Your task to perform on an android device: Open Maps and search for coffee Image 0: 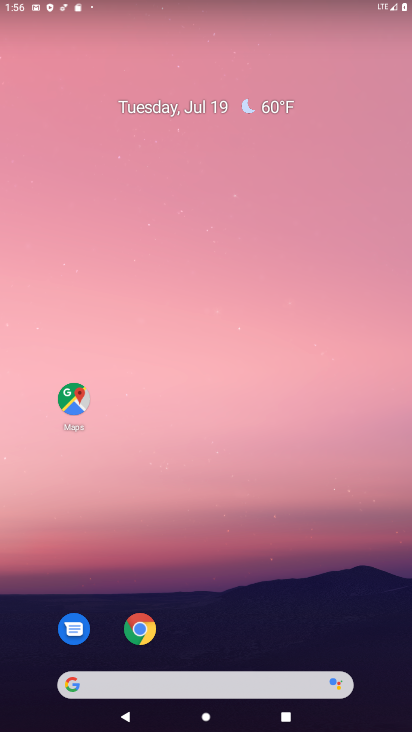
Step 0: click (73, 402)
Your task to perform on an android device: Open Maps and search for coffee Image 1: 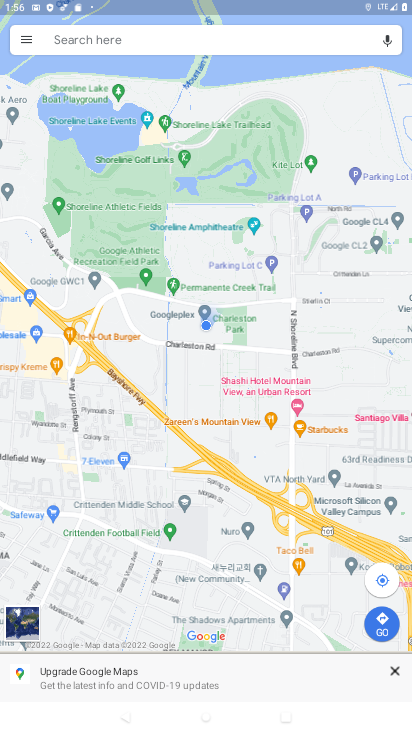
Step 1: click (73, 39)
Your task to perform on an android device: Open Maps and search for coffee Image 2: 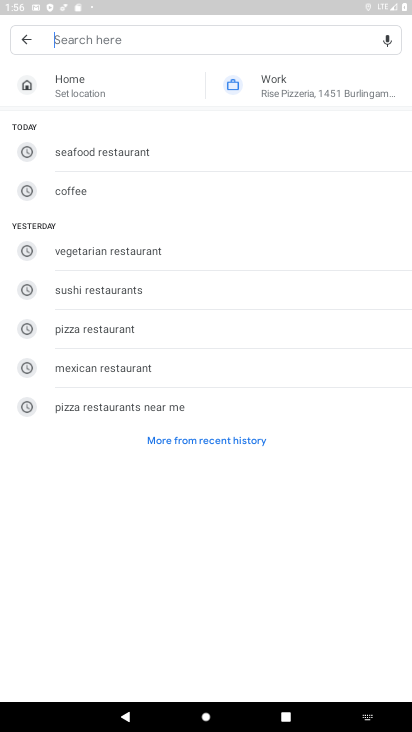
Step 2: type "coffee"
Your task to perform on an android device: Open Maps and search for coffee Image 3: 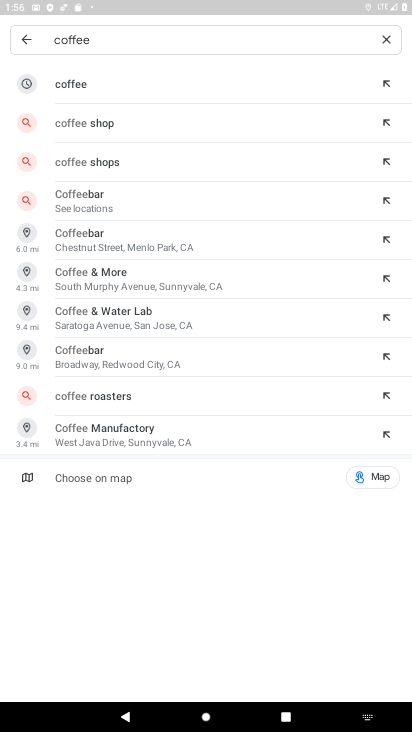
Step 3: click (74, 82)
Your task to perform on an android device: Open Maps and search for coffee Image 4: 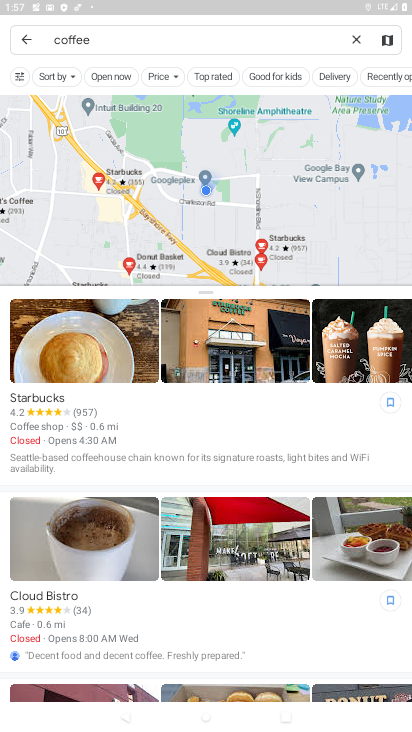
Step 4: task complete